Your task to perform on an android device: What's the price of the Galaxy phone on eBay? Image 0: 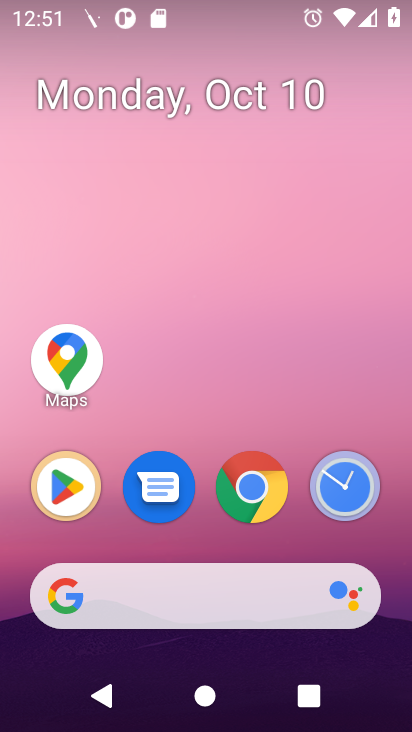
Step 0: click (241, 487)
Your task to perform on an android device: What's the price of the Galaxy phone on eBay? Image 1: 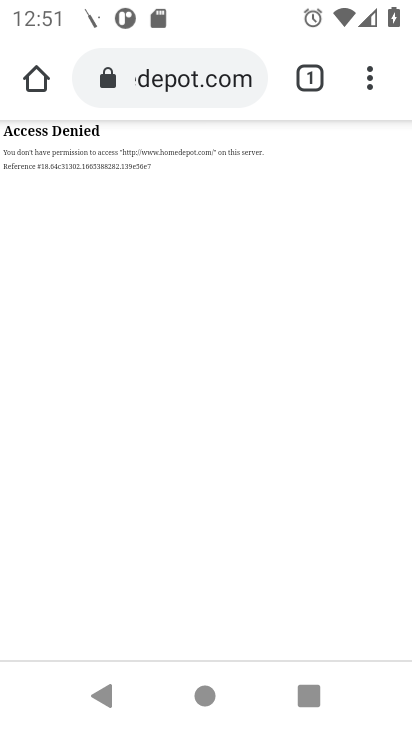
Step 1: click (183, 87)
Your task to perform on an android device: What's the price of the Galaxy phone on eBay? Image 2: 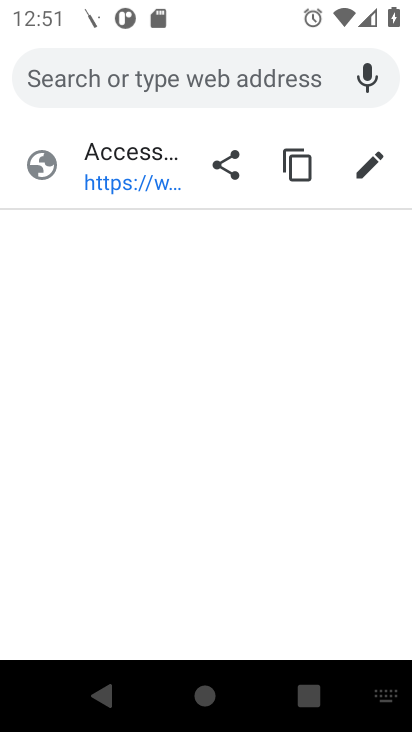
Step 2: type "ebay"
Your task to perform on an android device: What's the price of the Galaxy phone on eBay? Image 3: 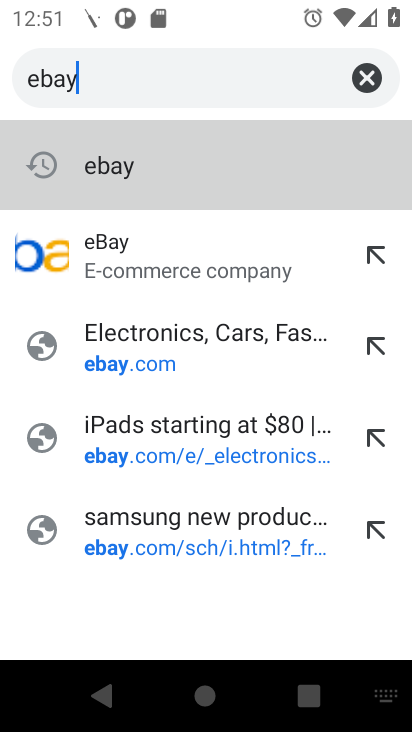
Step 3: type ""
Your task to perform on an android device: What's the price of the Galaxy phone on eBay? Image 4: 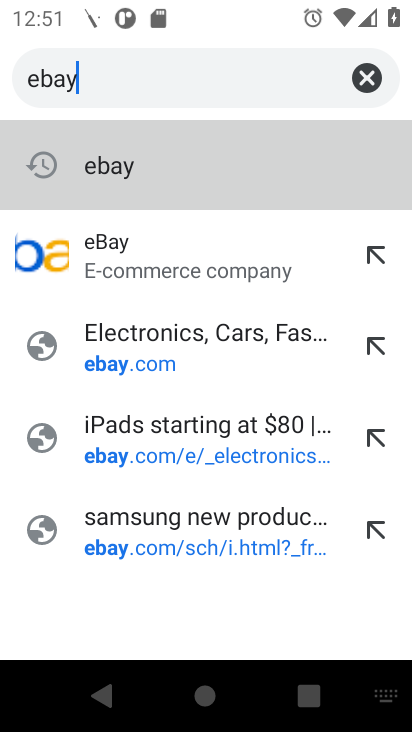
Step 4: press enter
Your task to perform on an android device: What's the price of the Galaxy phone on eBay? Image 5: 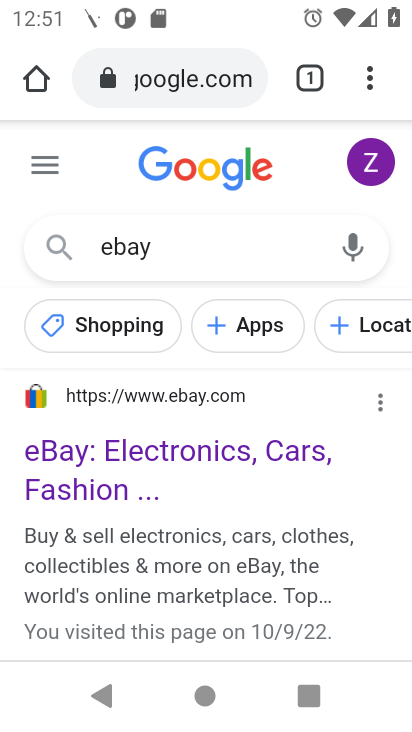
Step 5: click (83, 463)
Your task to perform on an android device: What's the price of the Galaxy phone on eBay? Image 6: 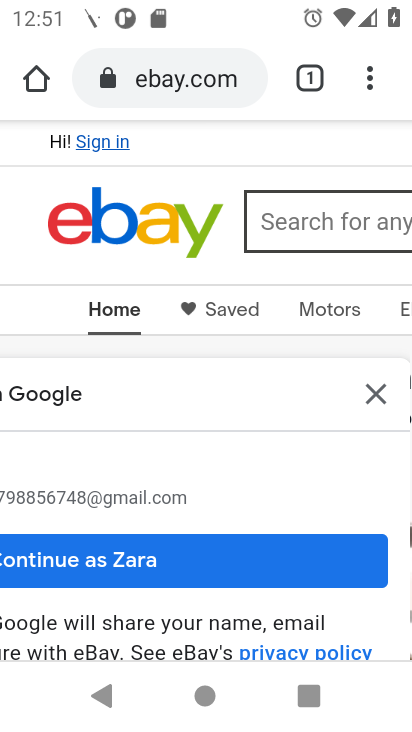
Step 6: click (254, 564)
Your task to perform on an android device: What's the price of the Galaxy phone on eBay? Image 7: 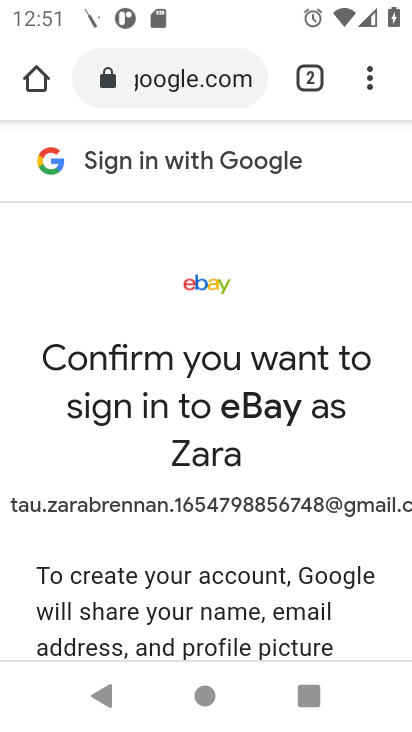
Step 7: drag from (261, 606) to (263, 254)
Your task to perform on an android device: What's the price of the Galaxy phone on eBay? Image 8: 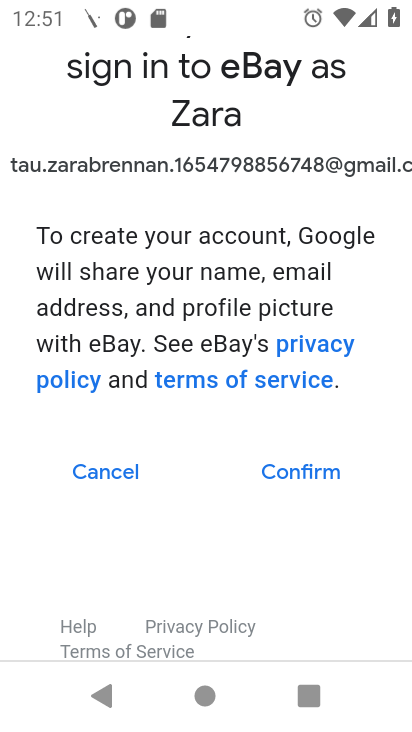
Step 8: click (308, 479)
Your task to perform on an android device: What's the price of the Galaxy phone on eBay? Image 9: 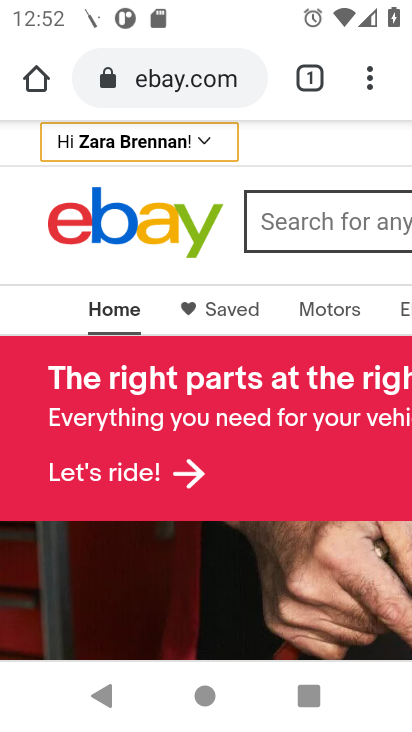
Step 9: drag from (208, 567) to (208, 438)
Your task to perform on an android device: What's the price of the Galaxy phone on eBay? Image 10: 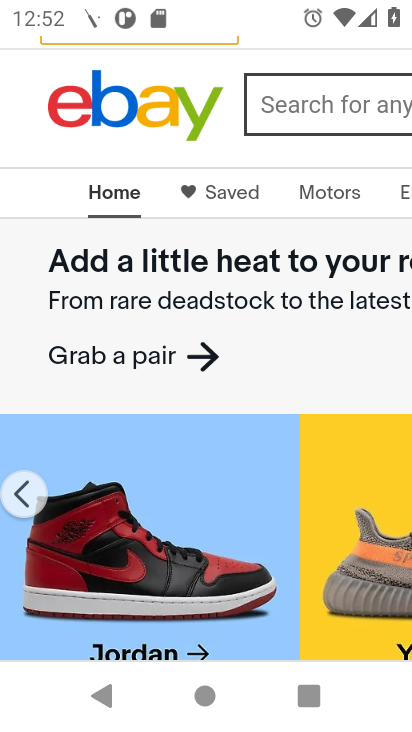
Step 10: click (320, 115)
Your task to perform on an android device: What's the price of the Galaxy phone on eBay? Image 11: 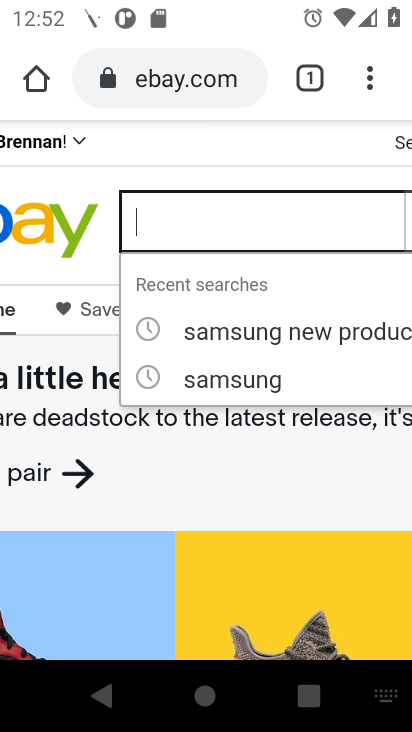
Step 11: type "galaxy phone"
Your task to perform on an android device: What's the price of the Galaxy phone on eBay? Image 12: 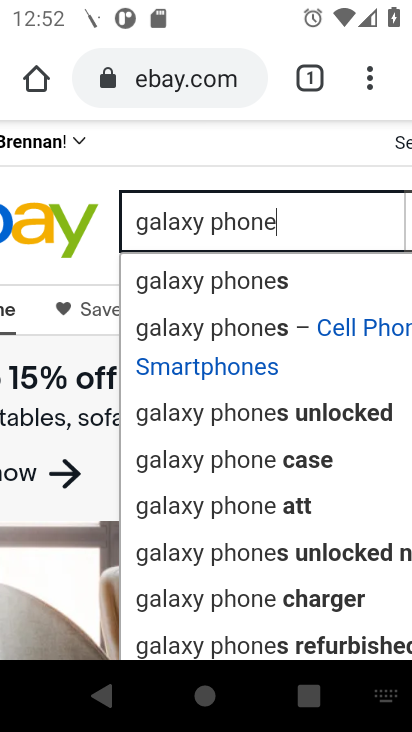
Step 12: press enter
Your task to perform on an android device: What's the price of the Galaxy phone on eBay? Image 13: 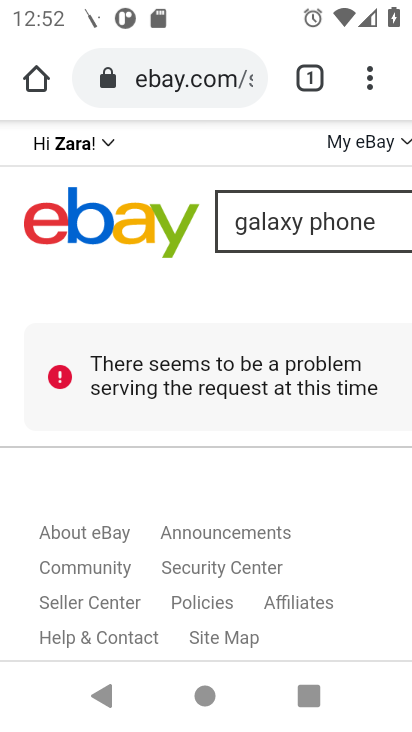
Step 13: task complete